Your task to perform on an android device: Open settings on Google Maps Image 0: 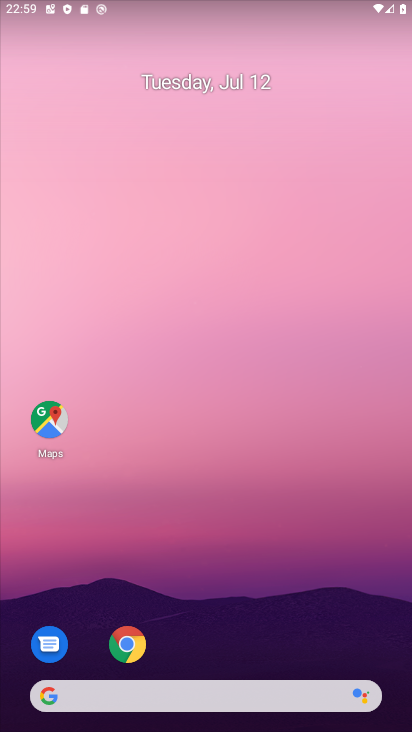
Step 0: click (59, 404)
Your task to perform on an android device: Open settings on Google Maps Image 1: 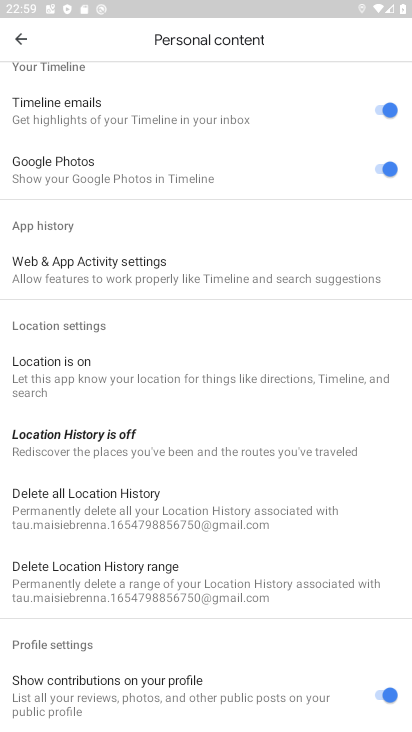
Step 1: click (17, 41)
Your task to perform on an android device: Open settings on Google Maps Image 2: 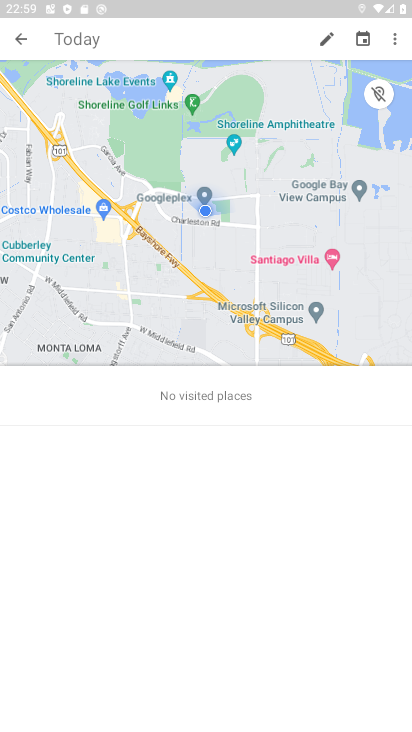
Step 2: click (25, 40)
Your task to perform on an android device: Open settings on Google Maps Image 3: 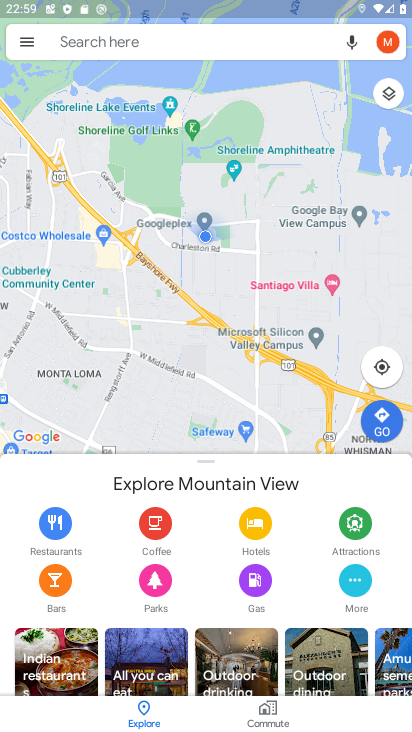
Step 3: click (17, 40)
Your task to perform on an android device: Open settings on Google Maps Image 4: 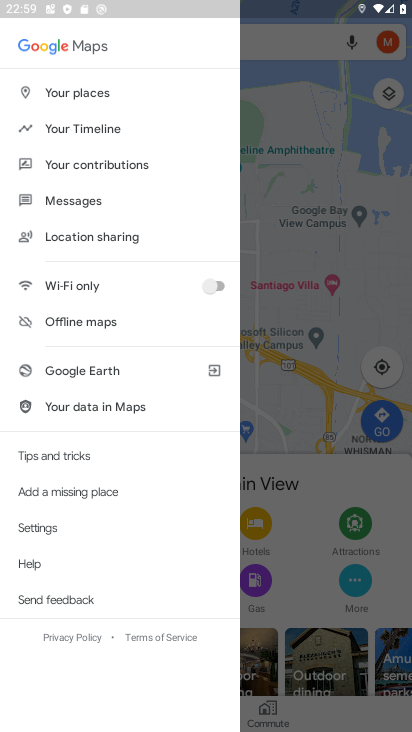
Step 4: click (66, 529)
Your task to perform on an android device: Open settings on Google Maps Image 5: 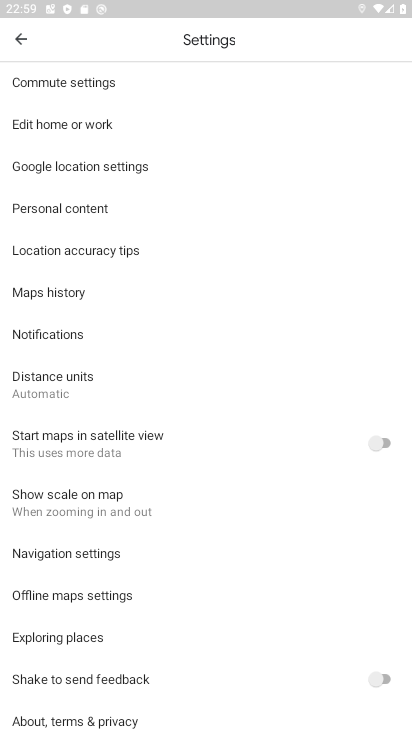
Step 5: task complete